Your task to perform on an android device: toggle javascript in the chrome app Image 0: 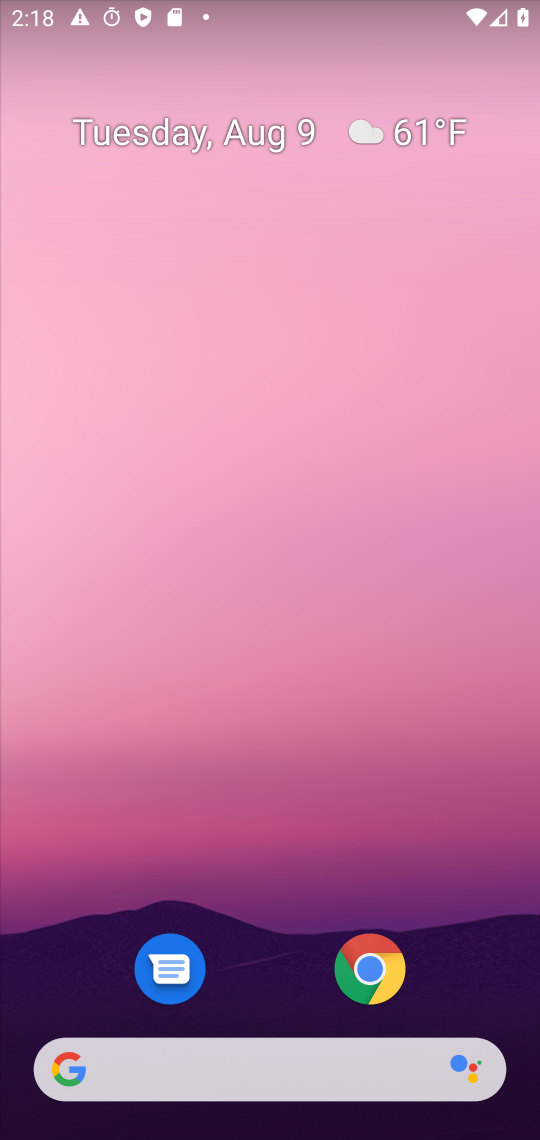
Step 0: press home button
Your task to perform on an android device: toggle javascript in the chrome app Image 1: 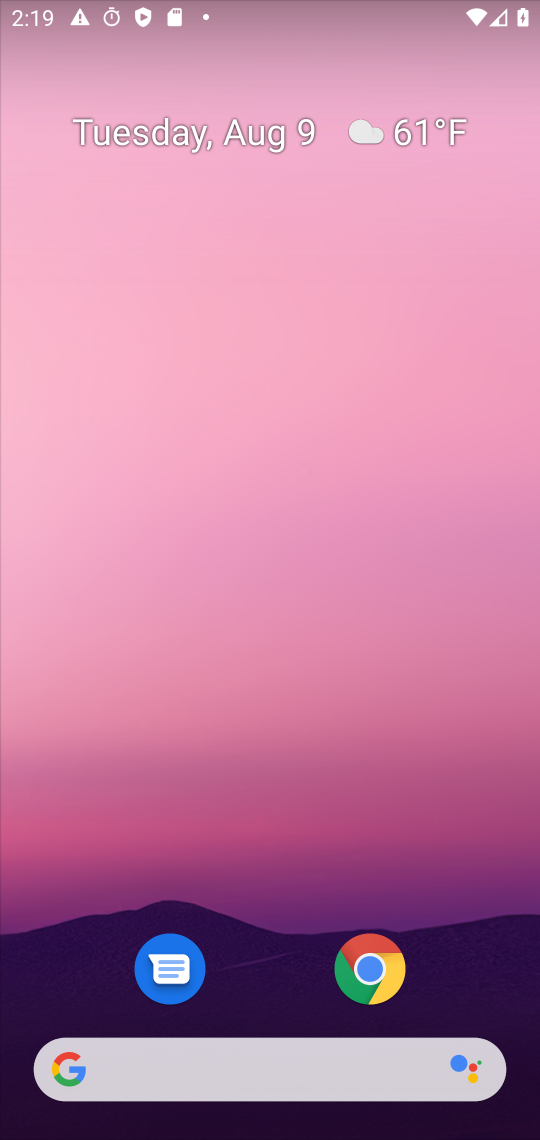
Step 1: click (361, 971)
Your task to perform on an android device: toggle javascript in the chrome app Image 2: 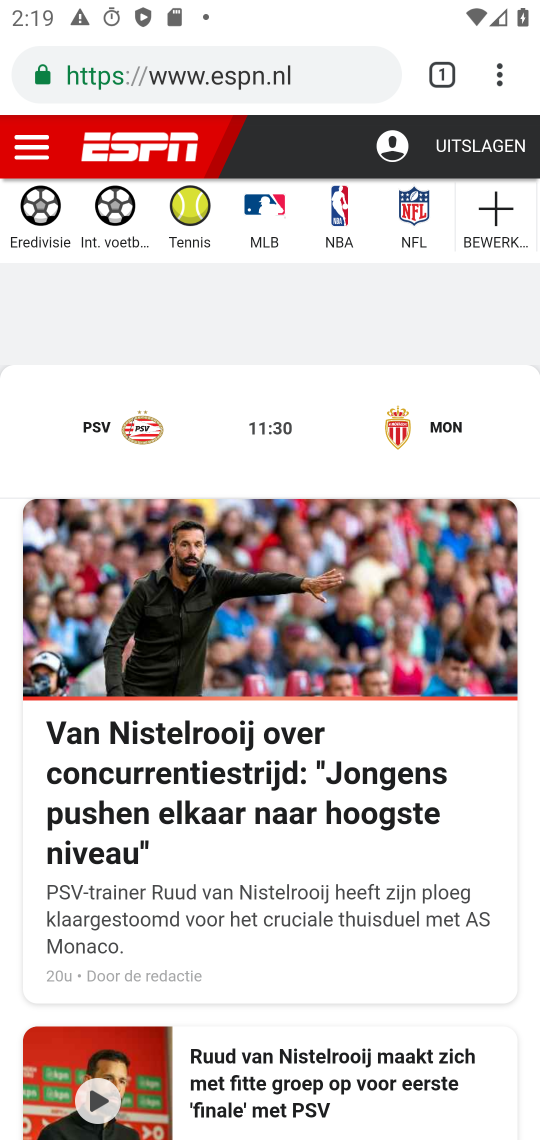
Step 2: click (504, 85)
Your task to perform on an android device: toggle javascript in the chrome app Image 3: 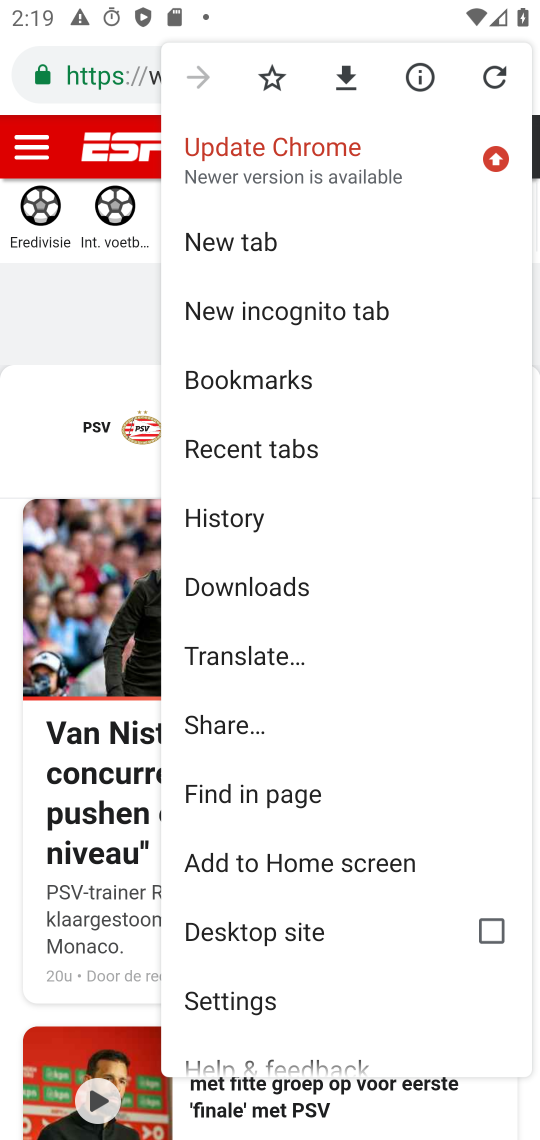
Step 3: click (241, 997)
Your task to perform on an android device: toggle javascript in the chrome app Image 4: 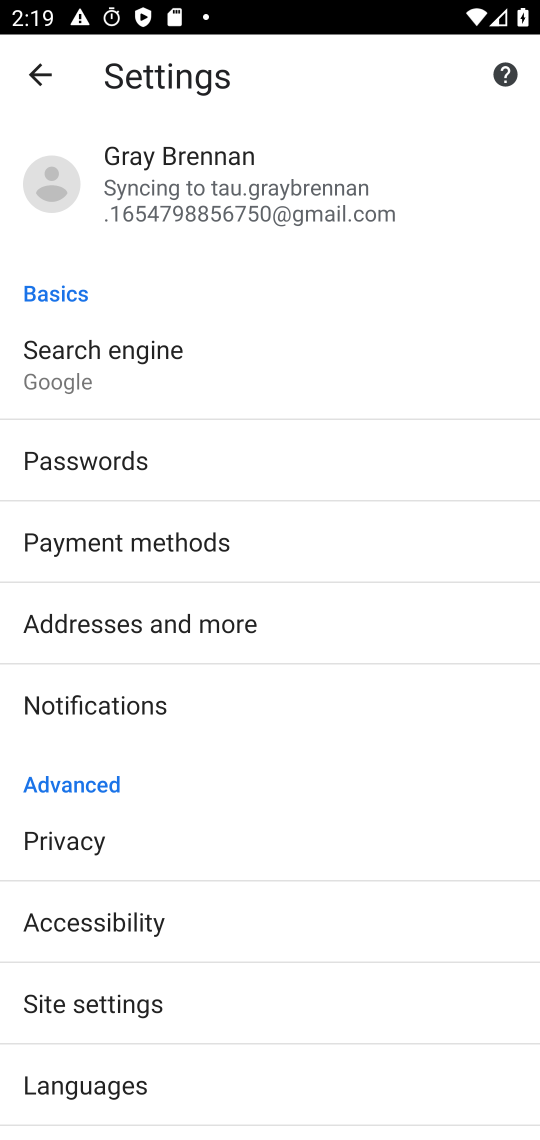
Step 4: click (72, 1006)
Your task to perform on an android device: toggle javascript in the chrome app Image 5: 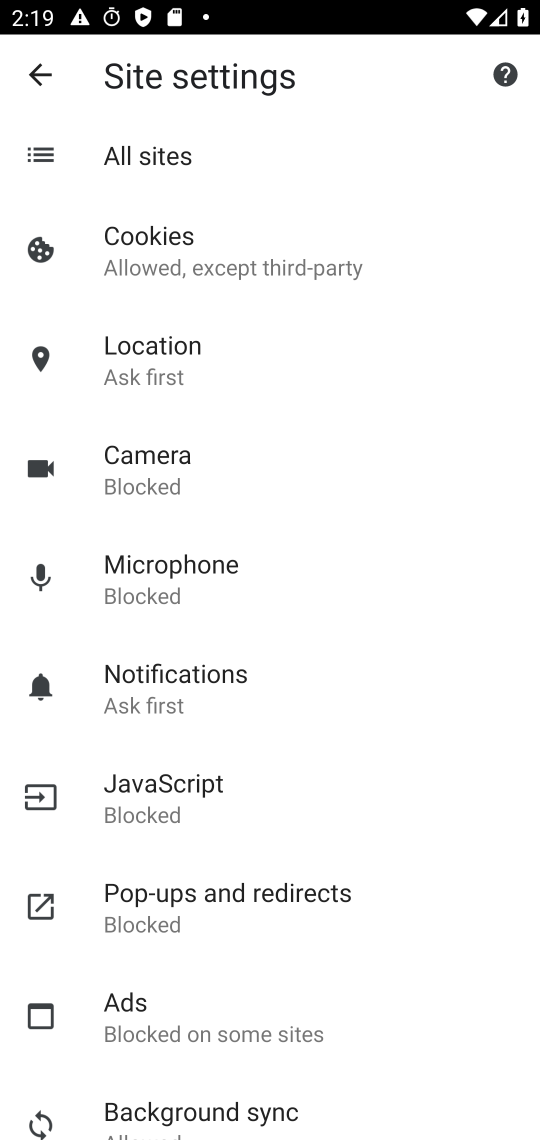
Step 5: click (141, 813)
Your task to perform on an android device: toggle javascript in the chrome app Image 6: 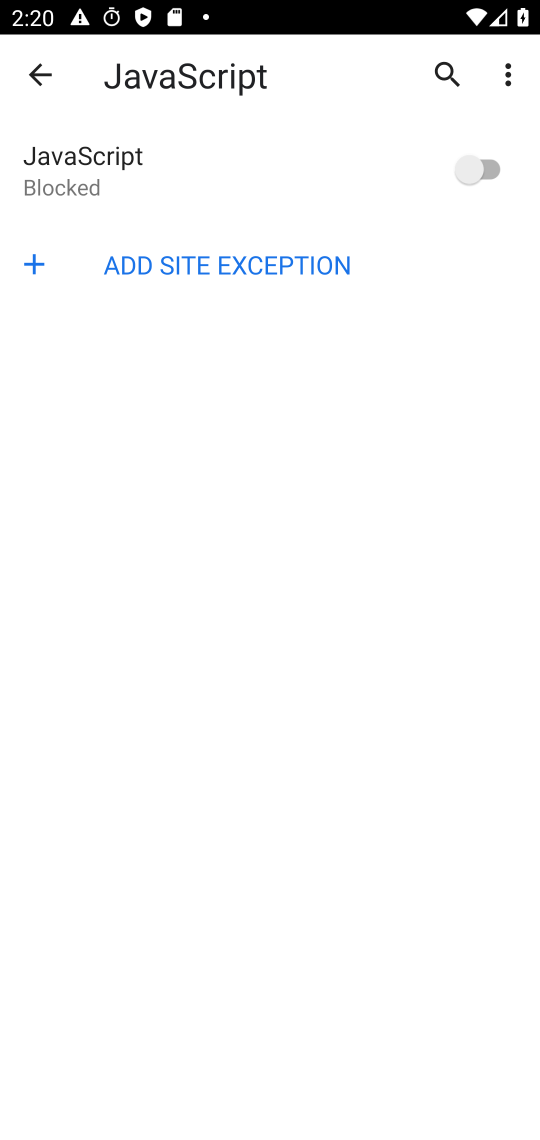
Step 6: task complete